Your task to perform on an android device: turn on notifications settings in the gmail app Image 0: 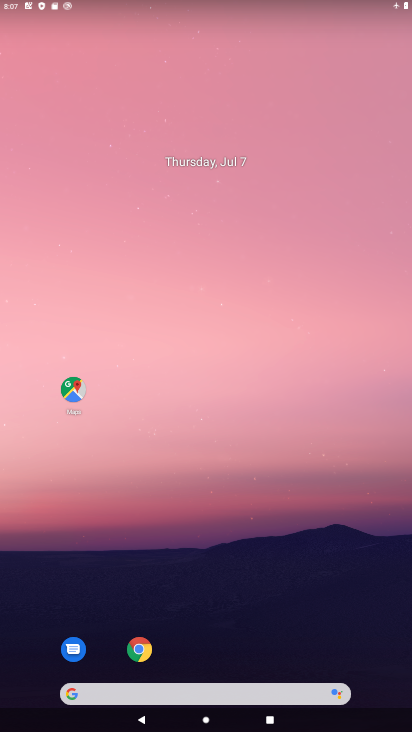
Step 0: drag from (281, 693) to (270, 254)
Your task to perform on an android device: turn on notifications settings in the gmail app Image 1: 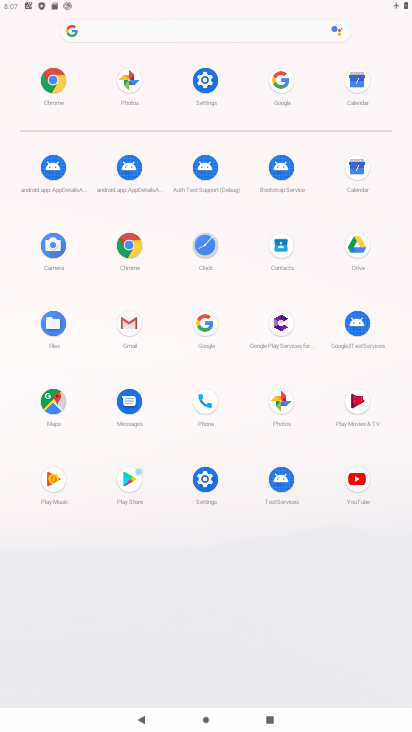
Step 1: click (116, 322)
Your task to perform on an android device: turn on notifications settings in the gmail app Image 2: 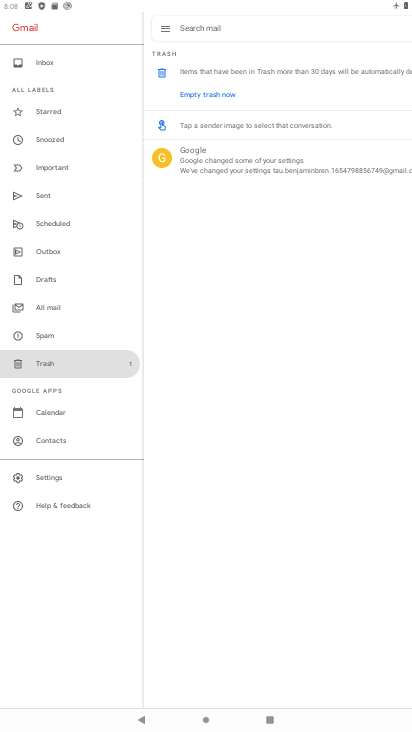
Step 2: click (50, 304)
Your task to perform on an android device: turn on notifications settings in the gmail app Image 3: 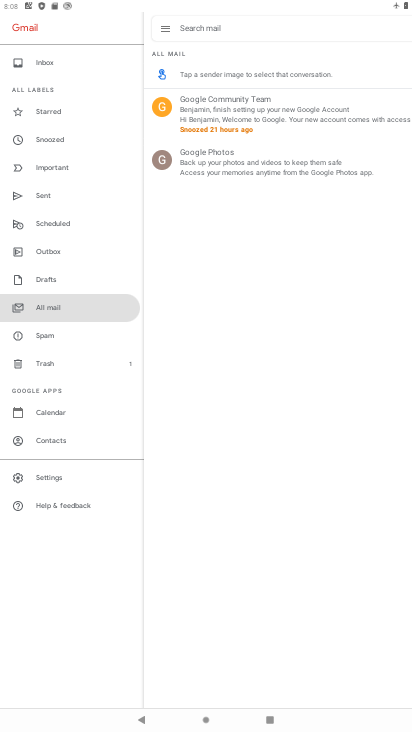
Step 3: click (50, 304)
Your task to perform on an android device: turn on notifications settings in the gmail app Image 4: 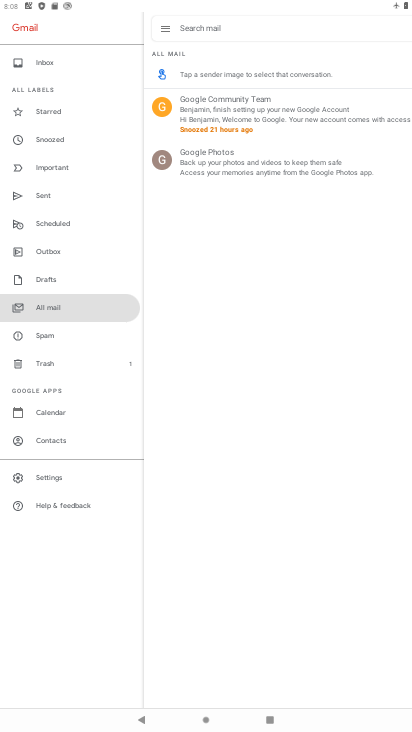
Step 4: click (169, 28)
Your task to perform on an android device: turn on notifications settings in the gmail app Image 5: 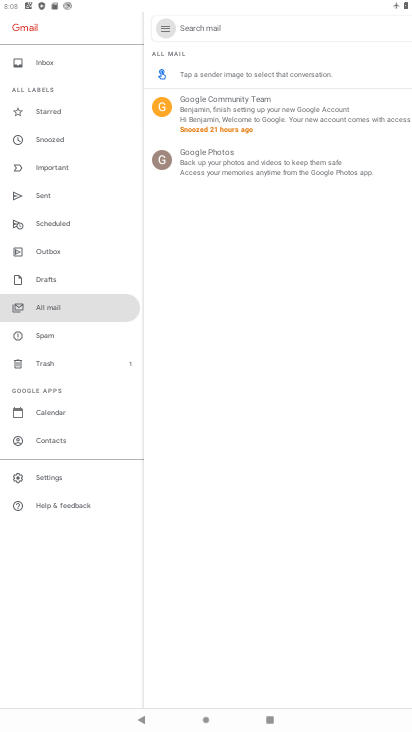
Step 5: click (169, 28)
Your task to perform on an android device: turn on notifications settings in the gmail app Image 6: 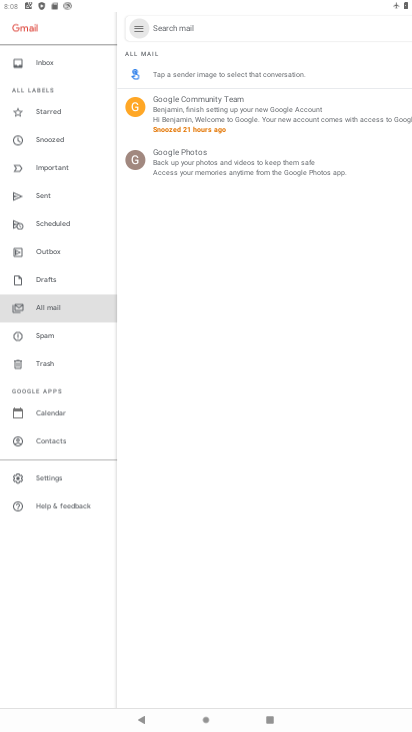
Step 6: click (166, 28)
Your task to perform on an android device: turn on notifications settings in the gmail app Image 7: 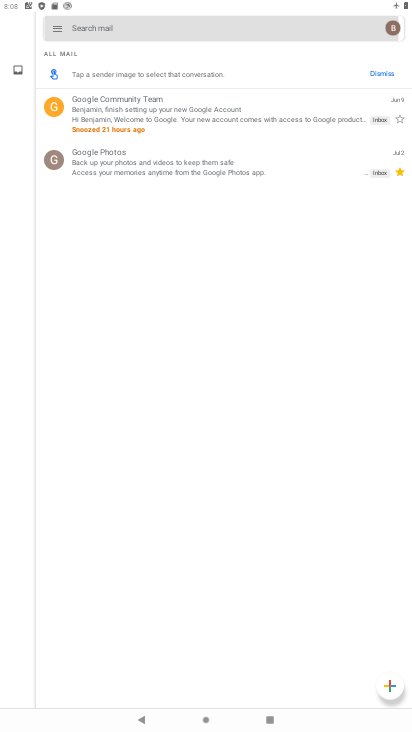
Step 7: click (151, 27)
Your task to perform on an android device: turn on notifications settings in the gmail app Image 8: 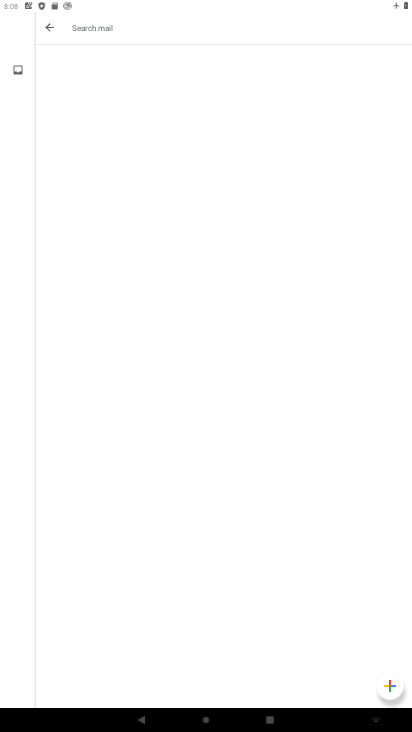
Step 8: click (49, 20)
Your task to perform on an android device: turn on notifications settings in the gmail app Image 9: 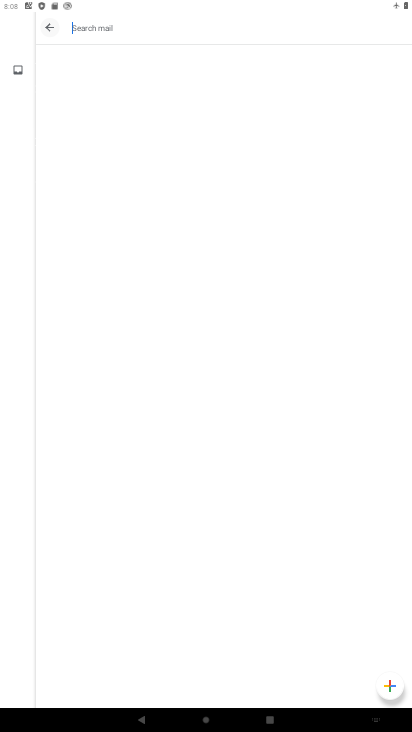
Step 9: click (49, 20)
Your task to perform on an android device: turn on notifications settings in the gmail app Image 10: 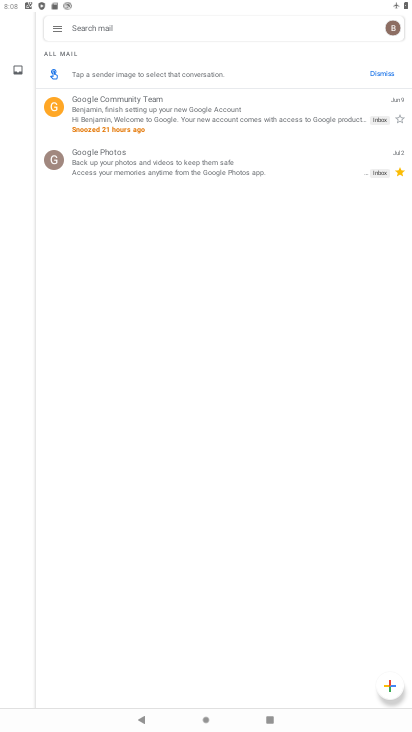
Step 10: click (60, 22)
Your task to perform on an android device: turn on notifications settings in the gmail app Image 11: 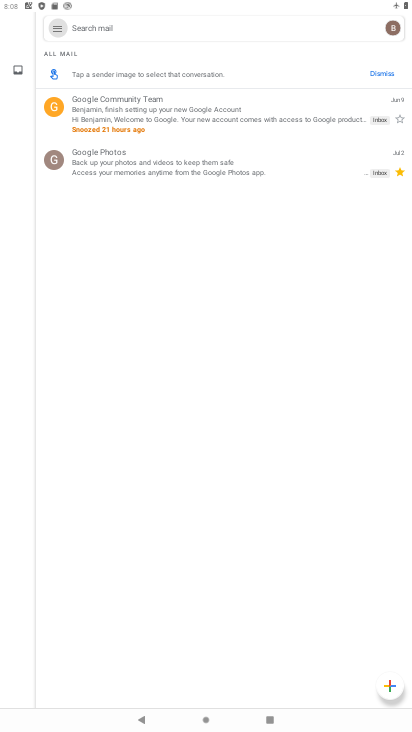
Step 11: click (60, 23)
Your task to perform on an android device: turn on notifications settings in the gmail app Image 12: 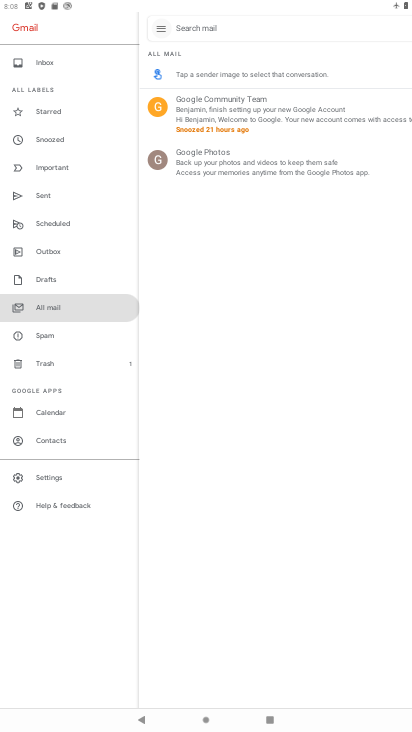
Step 12: click (60, 25)
Your task to perform on an android device: turn on notifications settings in the gmail app Image 13: 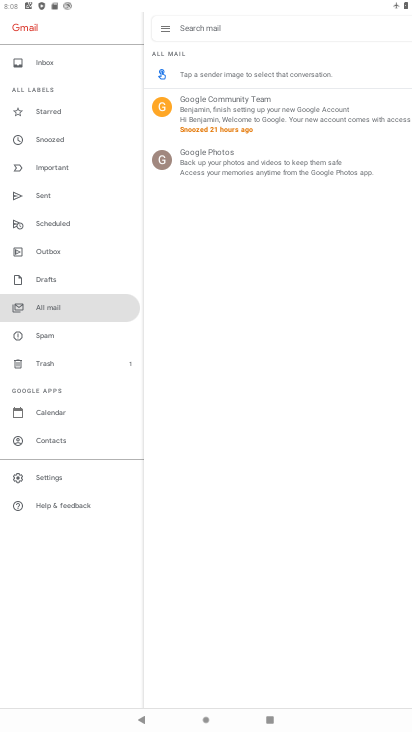
Step 13: click (62, 25)
Your task to perform on an android device: turn on notifications settings in the gmail app Image 14: 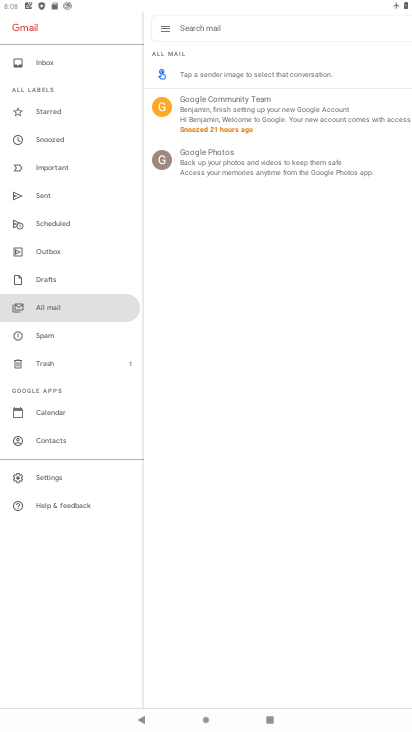
Step 14: click (61, 469)
Your task to perform on an android device: turn on notifications settings in the gmail app Image 15: 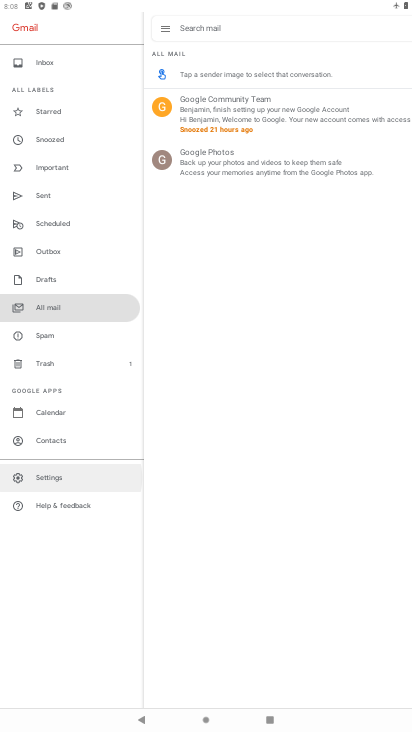
Step 15: click (59, 469)
Your task to perform on an android device: turn on notifications settings in the gmail app Image 16: 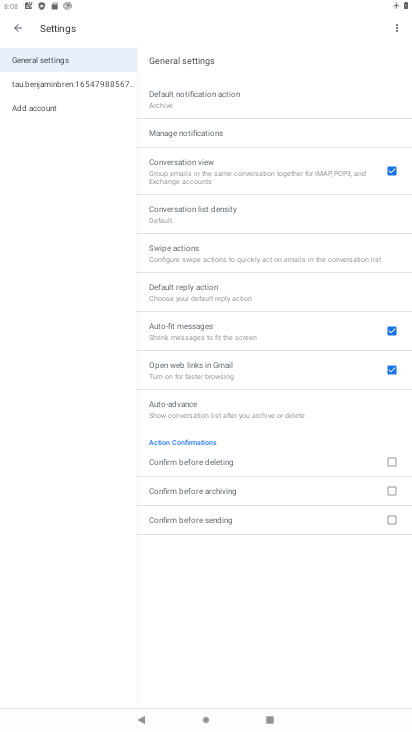
Step 16: click (48, 83)
Your task to perform on an android device: turn on notifications settings in the gmail app Image 17: 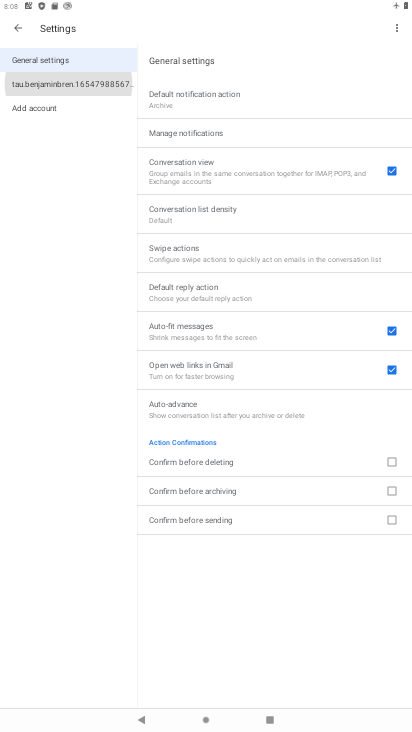
Step 17: click (48, 83)
Your task to perform on an android device: turn on notifications settings in the gmail app Image 18: 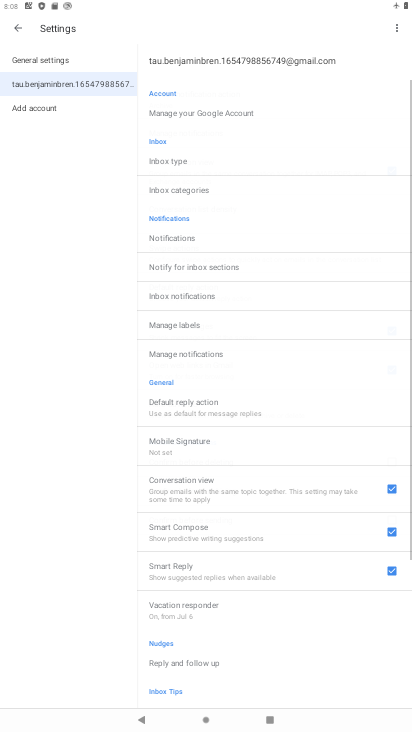
Step 18: click (48, 83)
Your task to perform on an android device: turn on notifications settings in the gmail app Image 19: 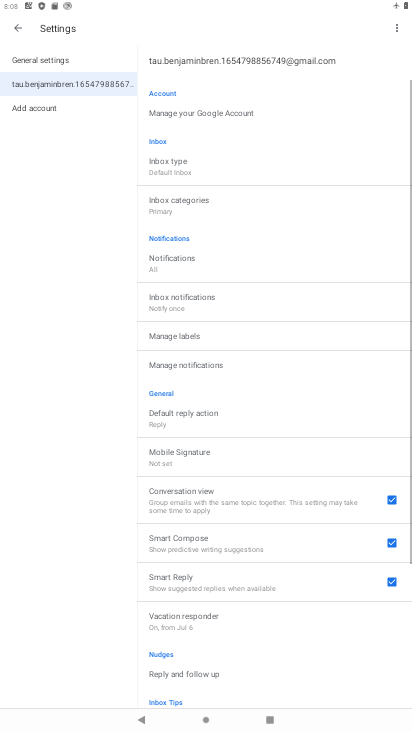
Step 19: click (48, 83)
Your task to perform on an android device: turn on notifications settings in the gmail app Image 20: 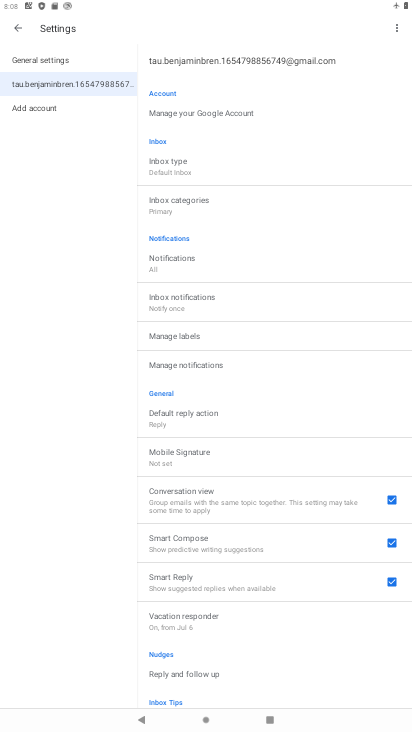
Step 20: click (170, 265)
Your task to perform on an android device: turn on notifications settings in the gmail app Image 21: 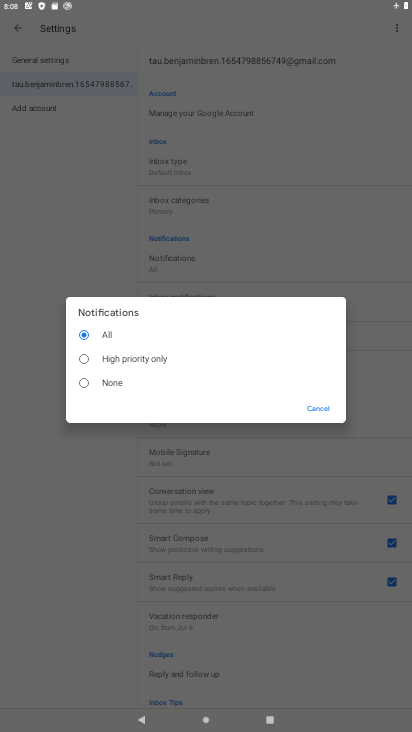
Step 21: click (312, 414)
Your task to perform on an android device: turn on notifications settings in the gmail app Image 22: 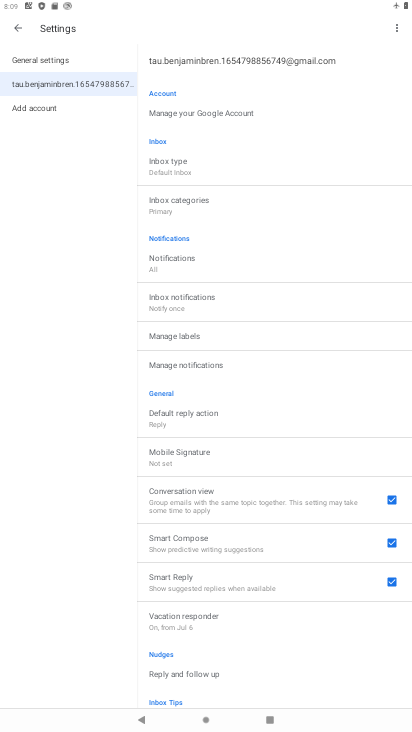
Step 22: click (179, 254)
Your task to perform on an android device: turn on notifications settings in the gmail app Image 23: 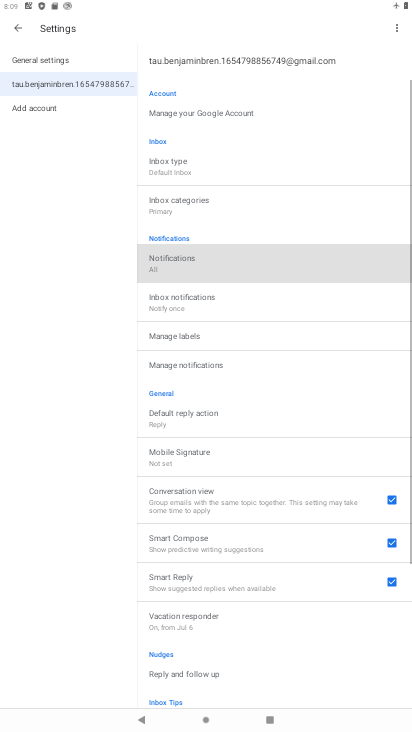
Step 23: click (180, 255)
Your task to perform on an android device: turn on notifications settings in the gmail app Image 24: 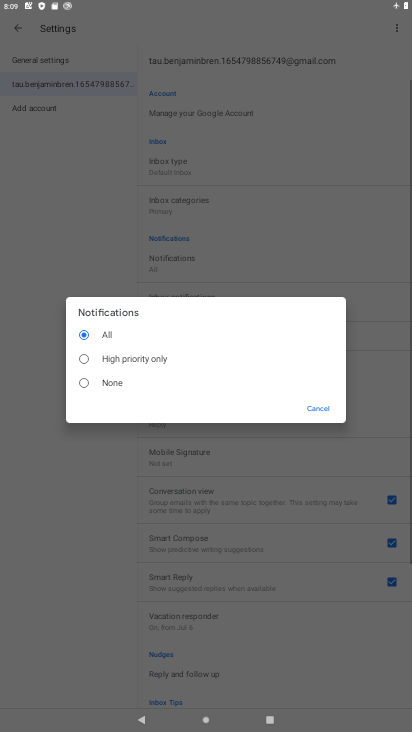
Step 24: click (186, 256)
Your task to perform on an android device: turn on notifications settings in the gmail app Image 25: 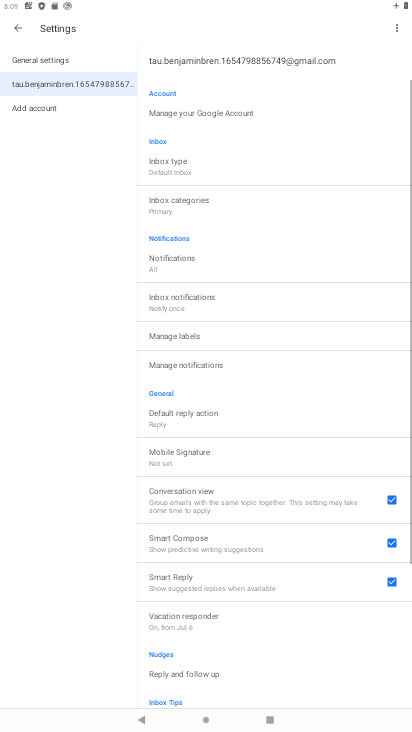
Step 25: click (188, 257)
Your task to perform on an android device: turn on notifications settings in the gmail app Image 26: 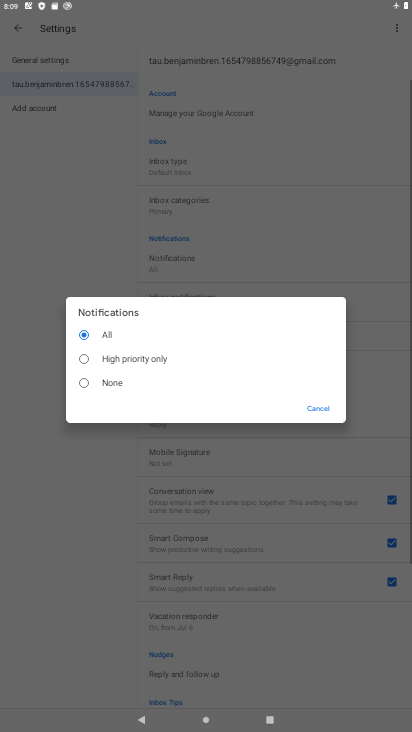
Step 26: click (312, 400)
Your task to perform on an android device: turn on notifications settings in the gmail app Image 27: 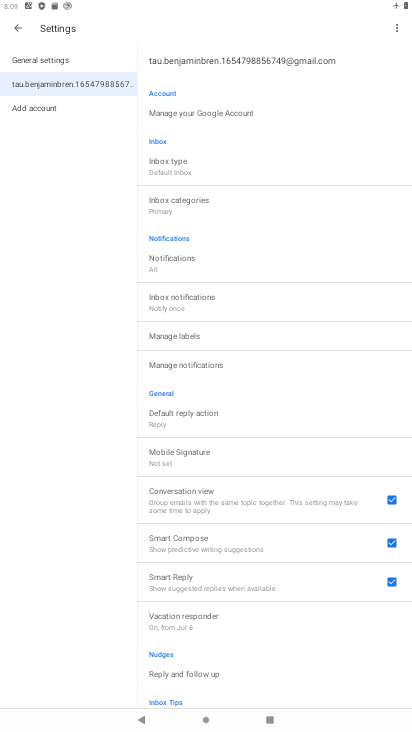
Step 27: task complete